Your task to perform on an android device: Open the map Image 0: 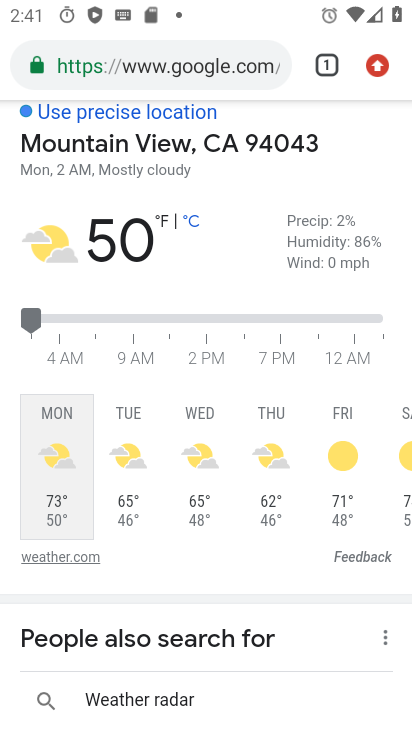
Step 0: press home button
Your task to perform on an android device: Open the map Image 1: 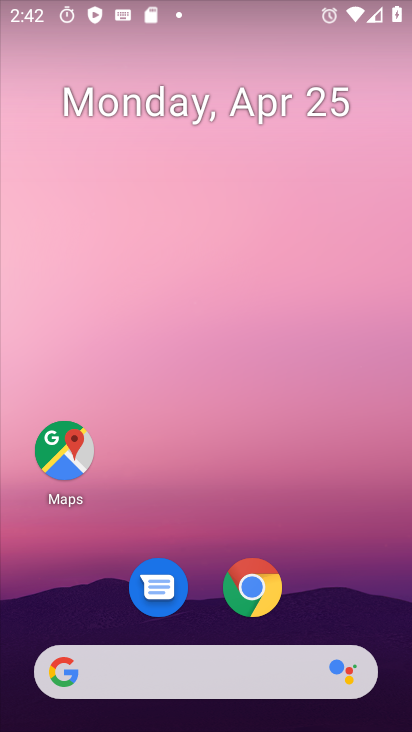
Step 1: drag from (325, 478) to (364, 121)
Your task to perform on an android device: Open the map Image 2: 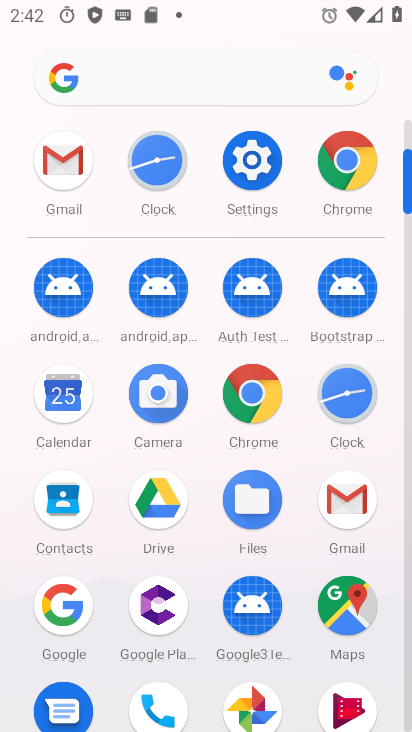
Step 2: click (364, 602)
Your task to perform on an android device: Open the map Image 3: 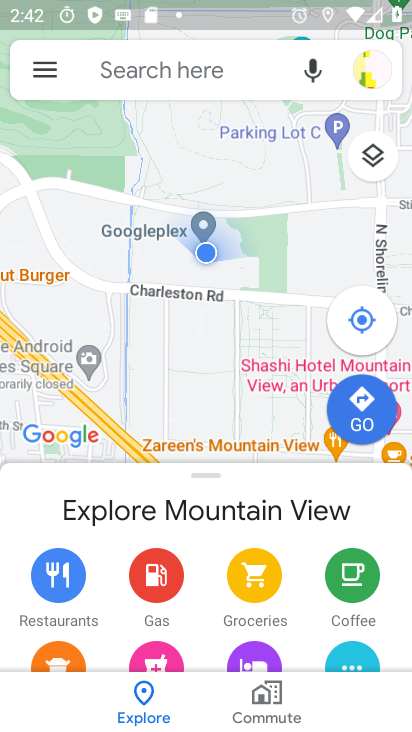
Step 3: task complete